Your task to perform on an android device: all mails in gmail Image 0: 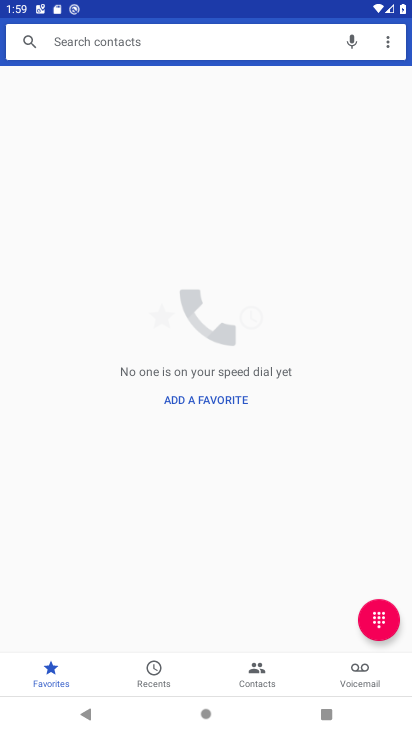
Step 0: press home button
Your task to perform on an android device: all mails in gmail Image 1: 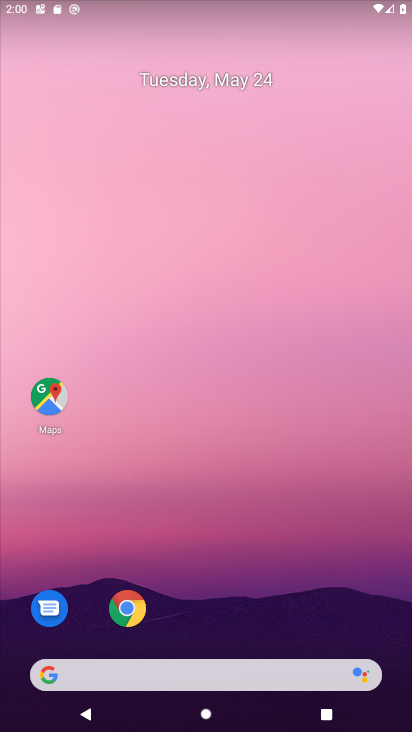
Step 1: drag from (316, 589) to (183, 54)
Your task to perform on an android device: all mails in gmail Image 2: 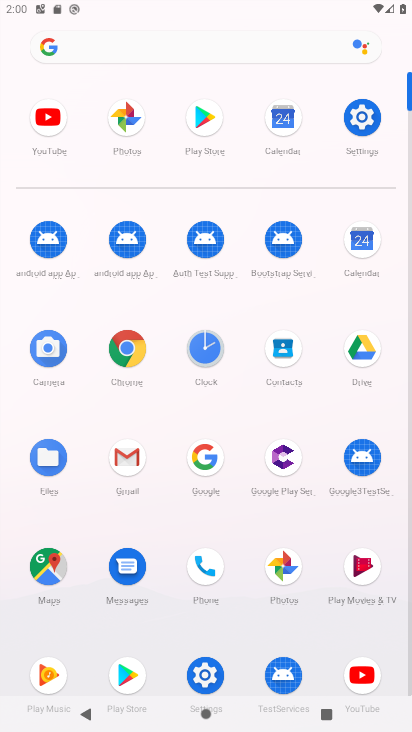
Step 2: click (109, 454)
Your task to perform on an android device: all mails in gmail Image 3: 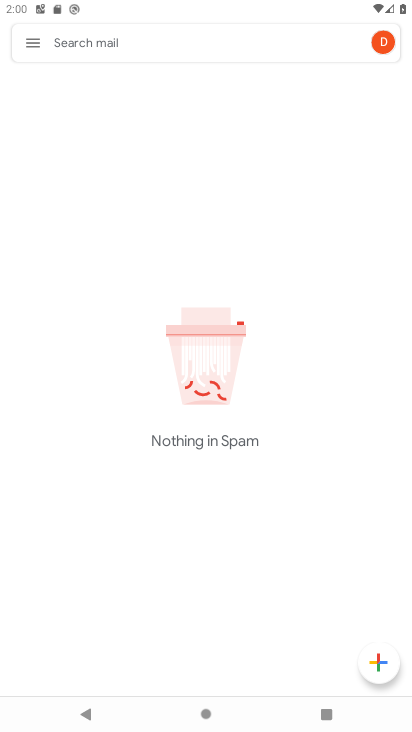
Step 3: click (38, 30)
Your task to perform on an android device: all mails in gmail Image 4: 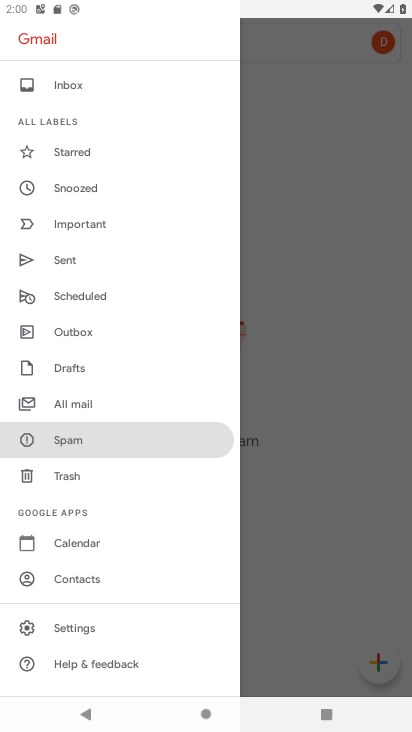
Step 4: click (49, 405)
Your task to perform on an android device: all mails in gmail Image 5: 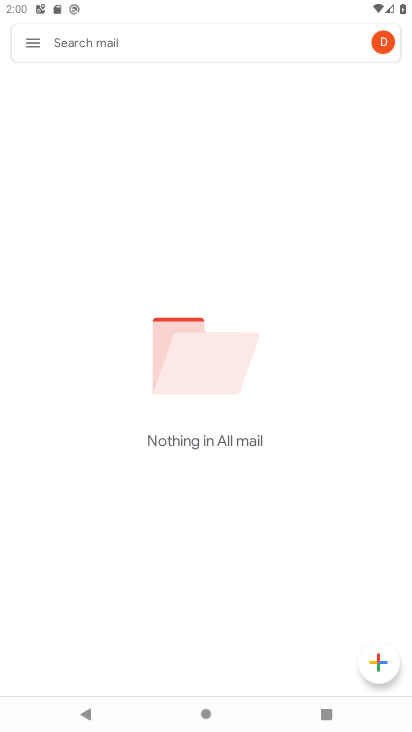
Step 5: task complete